Your task to perform on an android device: set default search engine in the chrome app Image 0: 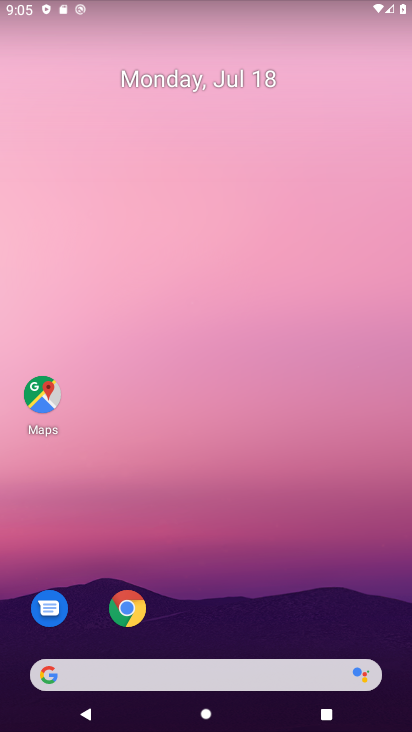
Step 0: click (168, 169)
Your task to perform on an android device: set default search engine in the chrome app Image 1: 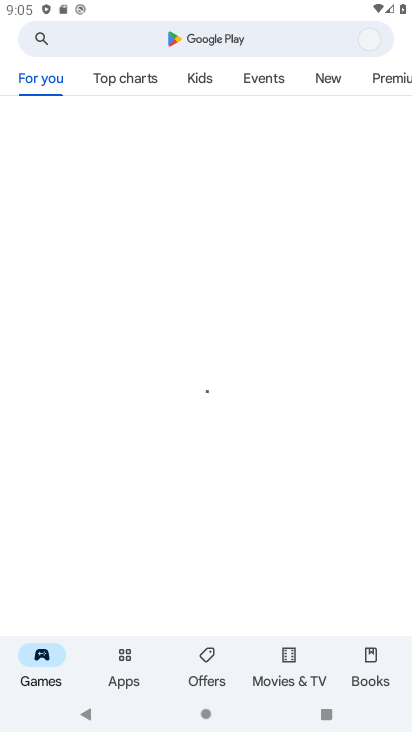
Step 1: press back button
Your task to perform on an android device: set default search engine in the chrome app Image 2: 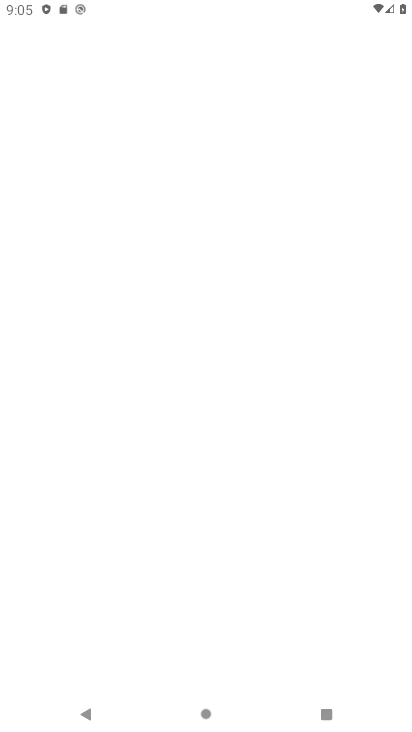
Step 2: press back button
Your task to perform on an android device: set default search engine in the chrome app Image 3: 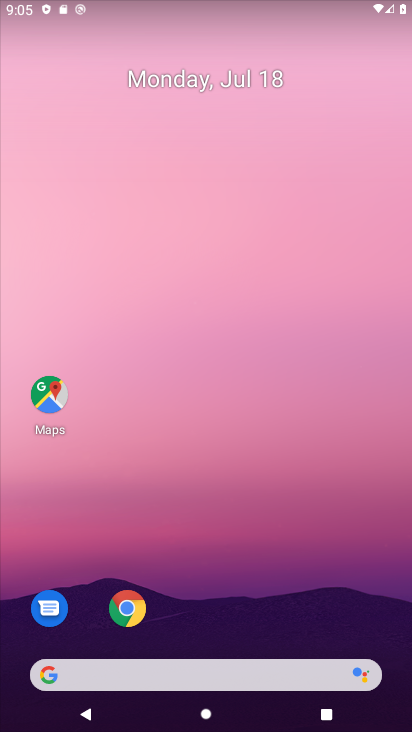
Step 3: drag from (314, 689) to (205, 147)
Your task to perform on an android device: set default search engine in the chrome app Image 4: 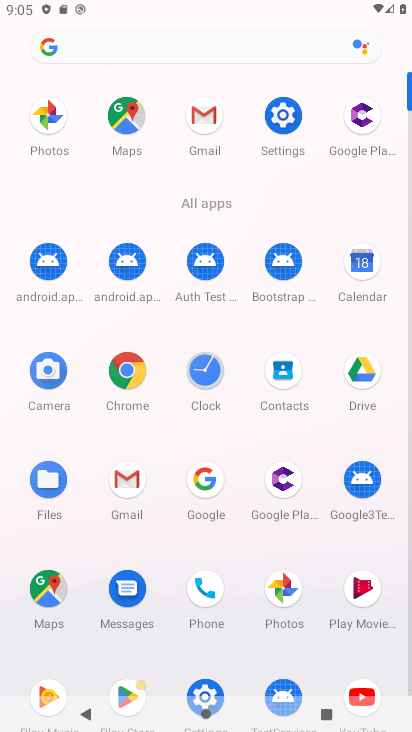
Step 4: click (139, 373)
Your task to perform on an android device: set default search engine in the chrome app Image 5: 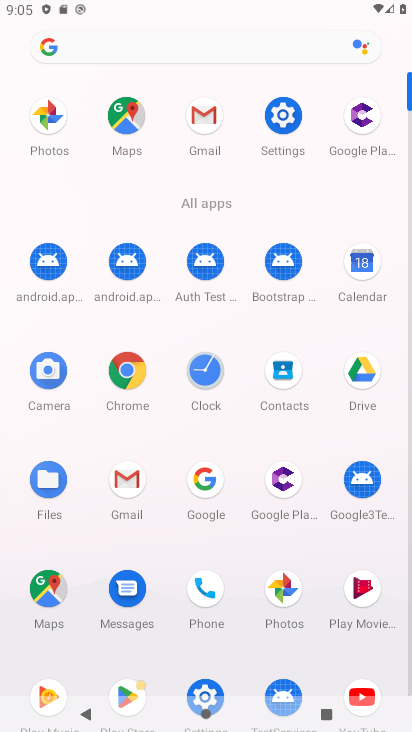
Step 5: click (137, 372)
Your task to perform on an android device: set default search engine in the chrome app Image 6: 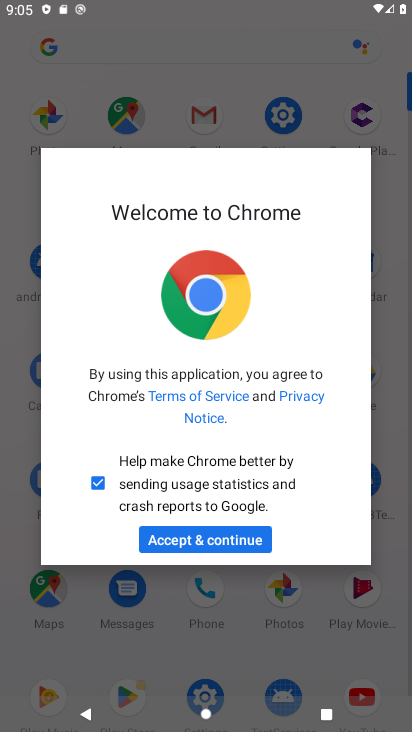
Step 6: click (205, 535)
Your task to perform on an android device: set default search engine in the chrome app Image 7: 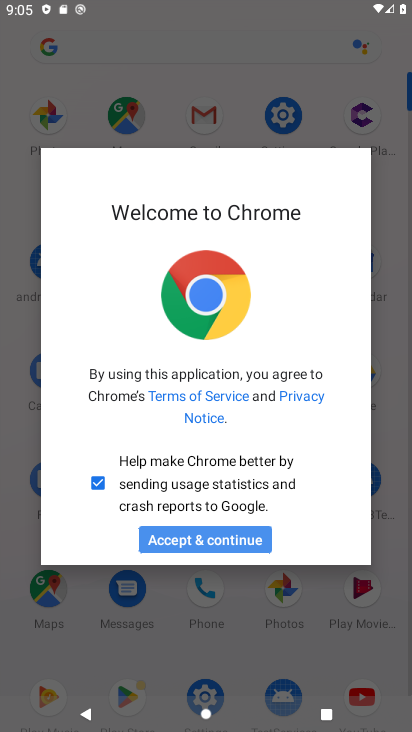
Step 7: click (215, 549)
Your task to perform on an android device: set default search engine in the chrome app Image 8: 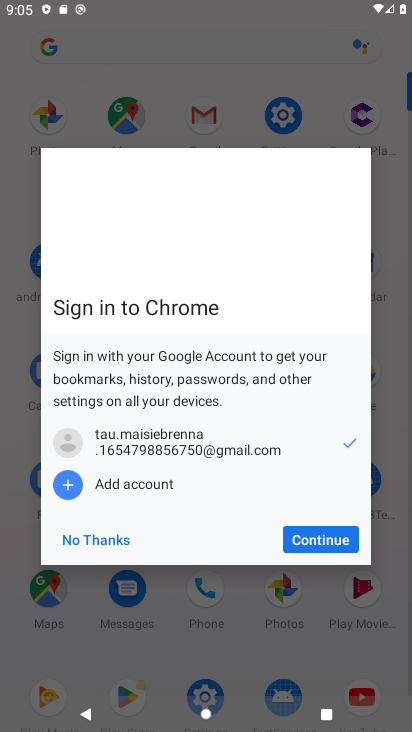
Step 8: click (316, 532)
Your task to perform on an android device: set default search engine in the chrome app Image 9: 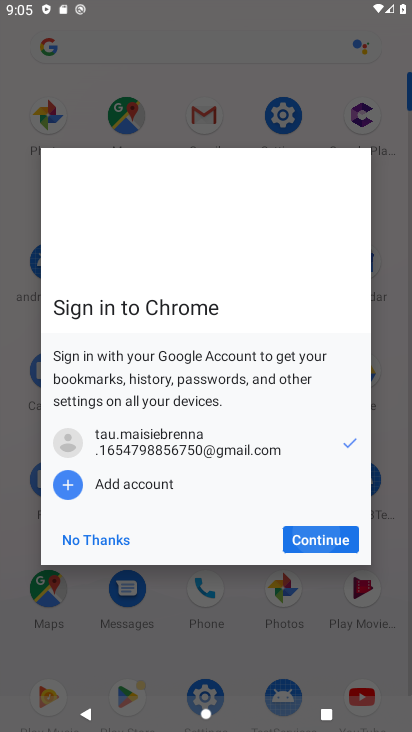
Step 9: click (320, 529)
Your task to perform on an android device: set default search engine in the chrome app Image 10: 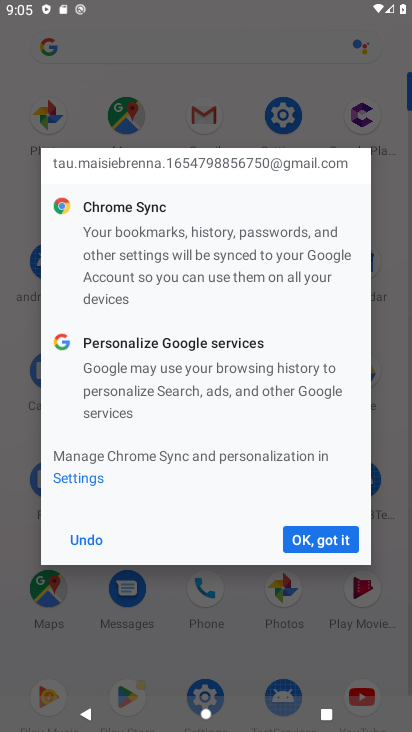
Step 10: click (317, 553)
Your task to perform on an android device: set default search engine in the chrome app Image 11: 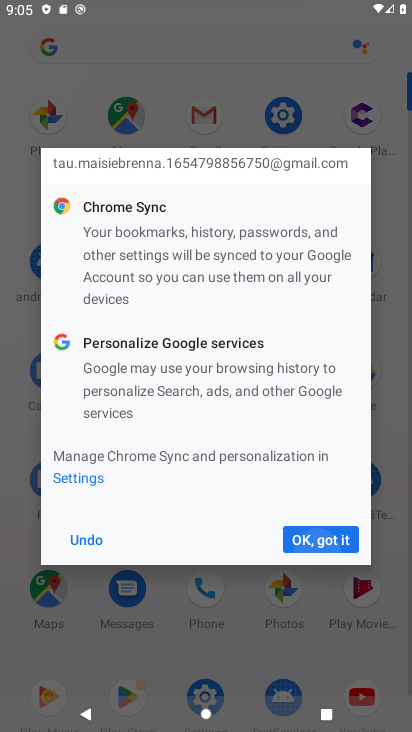
Step 11: click (319, 541)
Your task to perform on an android device: set default search engine in the chrome app Image 12: 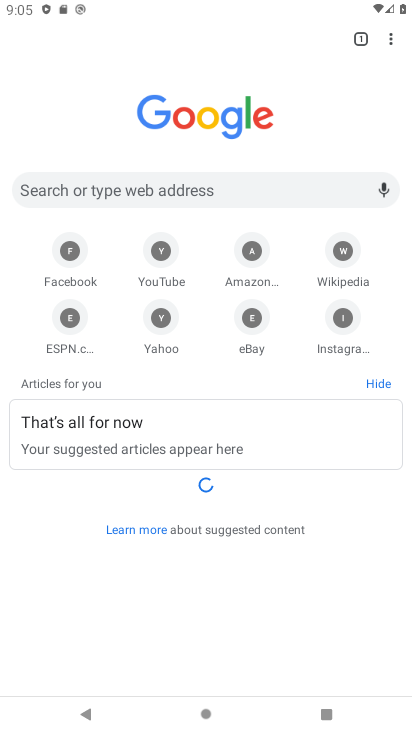
Step 12: drag from (382, 37) to (245, 325)
Your task to perform on an android device: set default search engine in the chrome app Image 13: 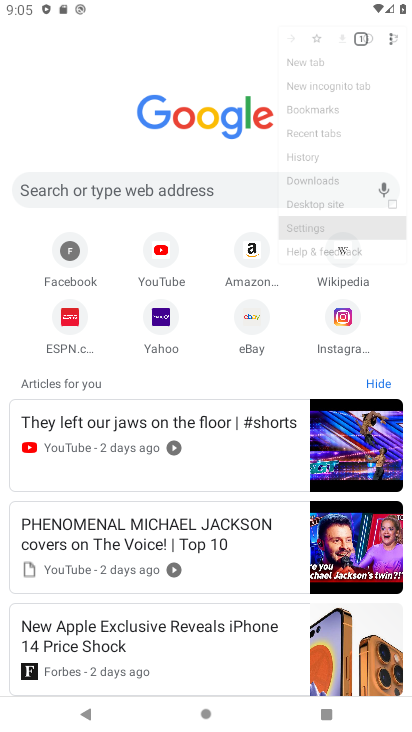
Step 13: click (253, 321)
Your task to perform on an android device: set default search engine in the chrome app Image 14: 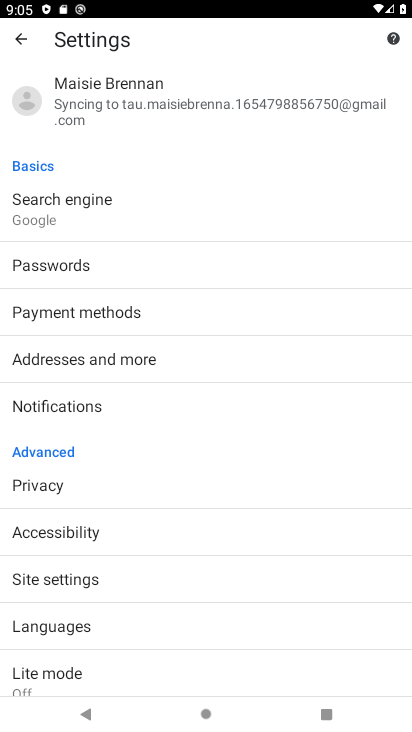
Step 14: click (36, 212)
Your task to perform on an android device: set default search engine in the chrome app Image 15: 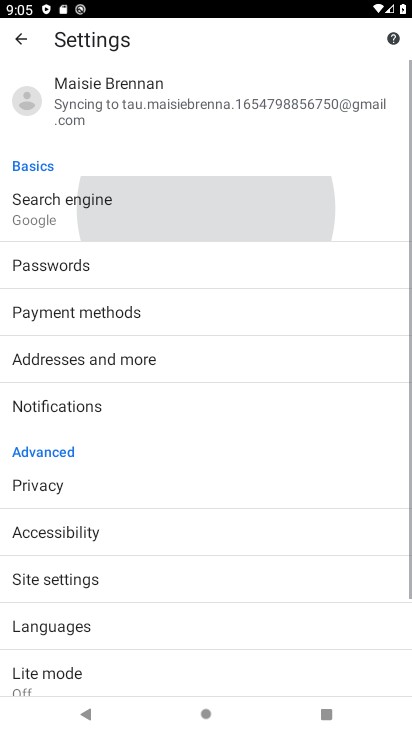
Step 15: click (34, 213)
Your task to perform on an android device: set default search engine in the chrome app Image 16: 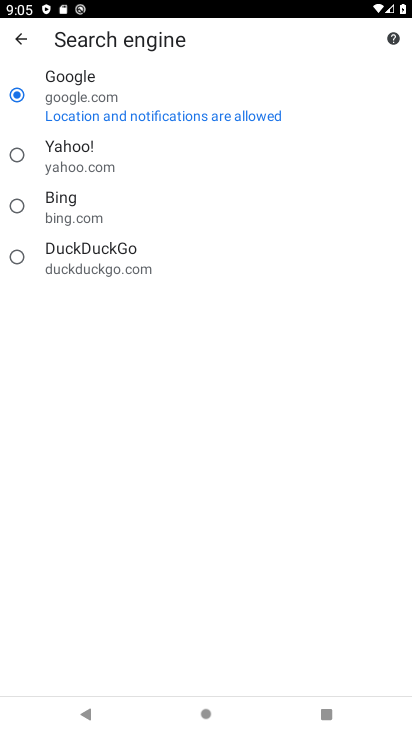
Step 16: click (7, 155)
Your task to perform on an android device: set default search engine in the chrome app Image 17: 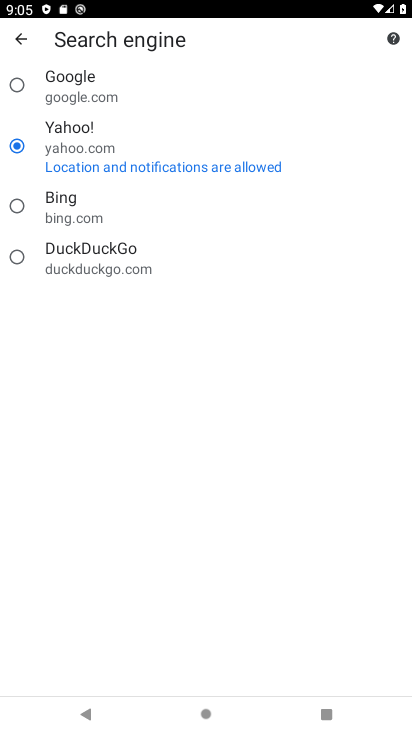
Step 17: task complete